Your task to perform on an android device: turn notification dots off Image 0: 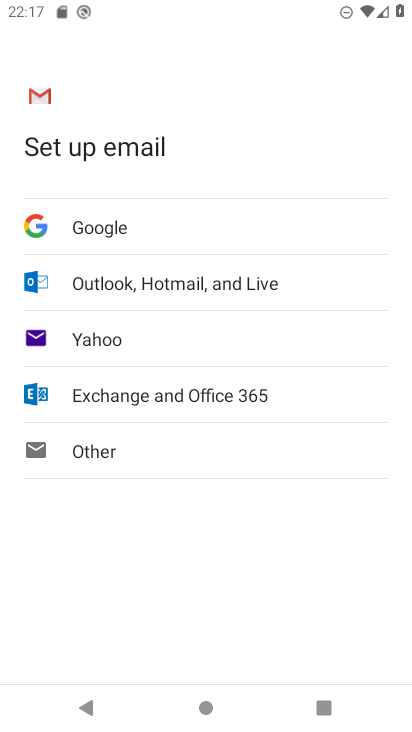
Step 0: press home button
Your task to perform on an android device: turn notification dots off Image 1: 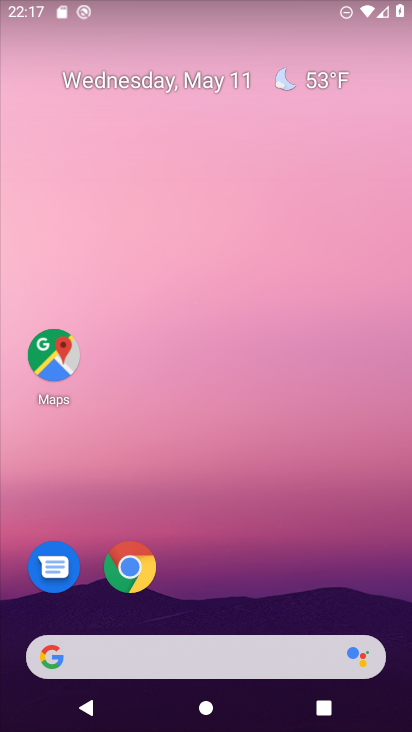
Step 1: drag from (256, 715) to (310, 1)
Your task to perform on an android device: turn notification dots off Image 2: 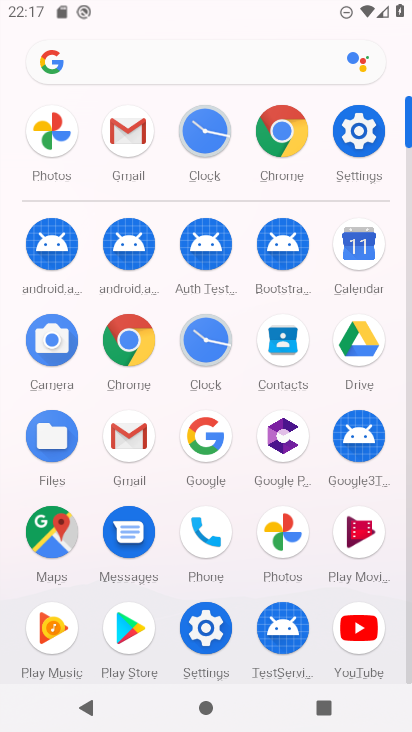
Step 2: click (345, 123)
Your task to perform on an android device: turn notification dots off Image 3: 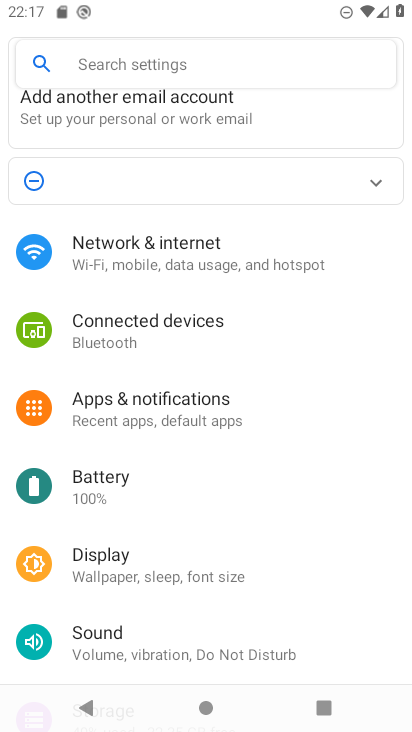
Step 3: click (190, 405)
Your task to perform on an android device: turn notification dots off Image 4: 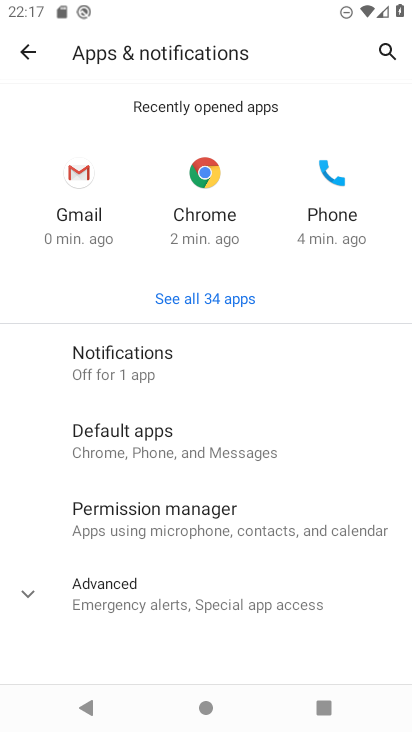
Step 4: click (169, 354)
Your task to perform on an android device: turn notification dots off Image 5: 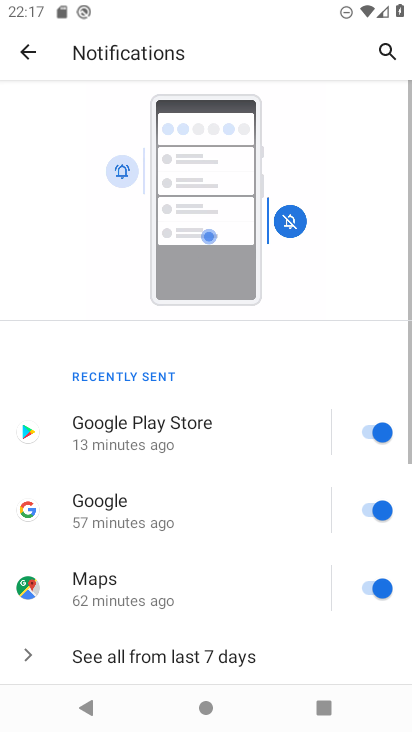
Step 5: drag from (266, 617) to (235, 83)
Your task to perform on an android device: turn notification dots off Image 6: 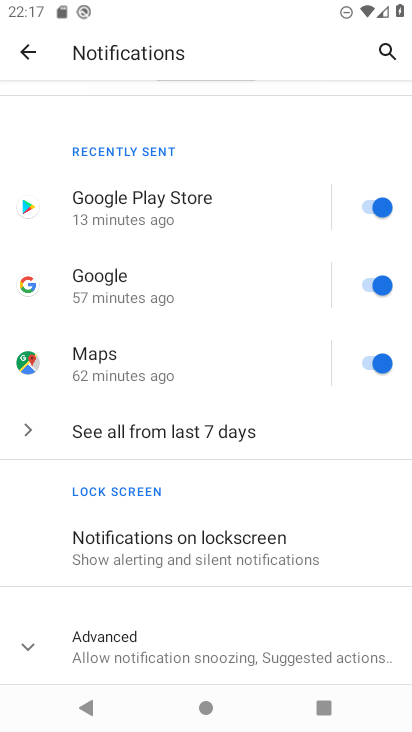
Step 6: click (299, 667)
Your task to perform on an android device: turn notification dots off Image 7: 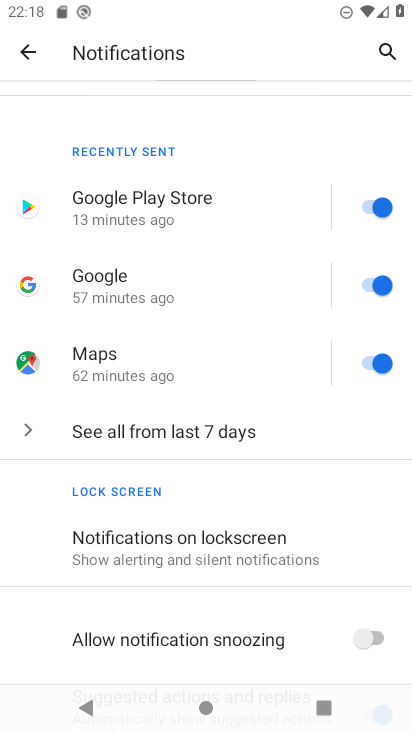
Step 7: task complete